Your task to perform on an android device: turn vacation reply on in the gmail app Image 0: 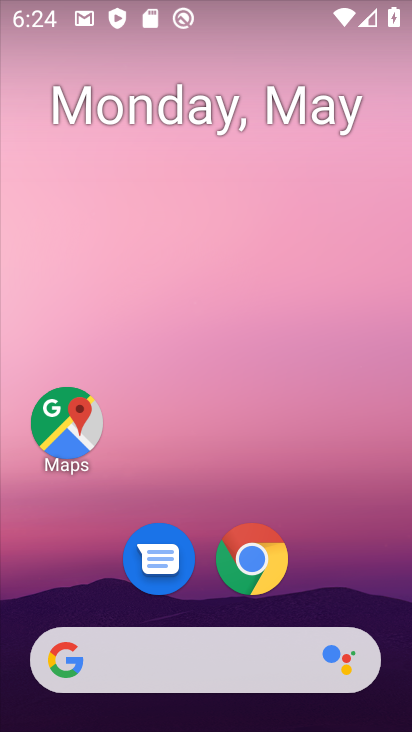
Step 0: drag from (383, 637) to (300, 86)
Your task to perform on an android device: turn vacation reply on in the gmail app Image 1: 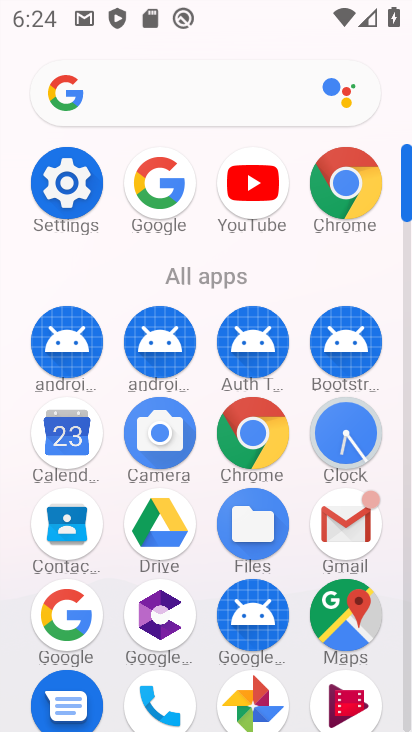
Step 1: click (357, 524)
Your task to perform on an android device: turn vacation reply on in the gmail app Image 2: 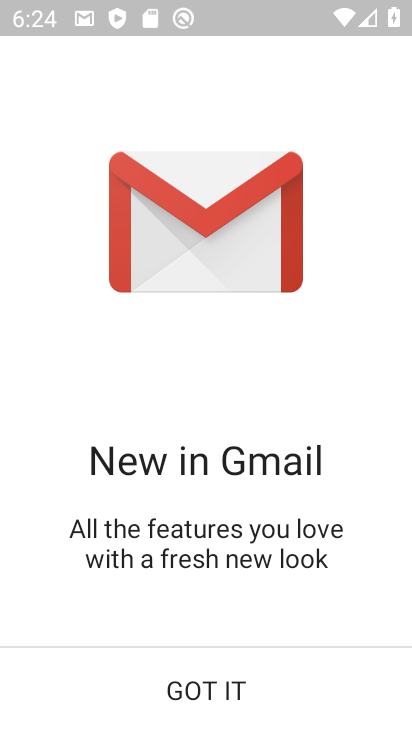
Step 2: click (269, 693)
Your task to perform on an android device: turn vacation reply on in the gmail app Image 3: 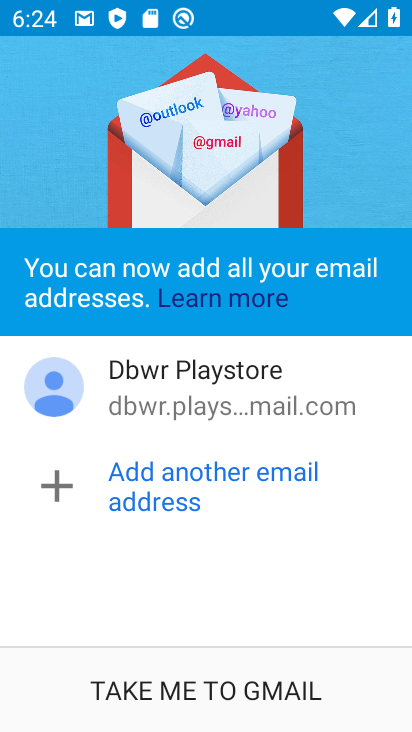
Step 3: click (269, 693)
Your task to perform on an android device: turn vacation reply on in the gmail app Image 4: 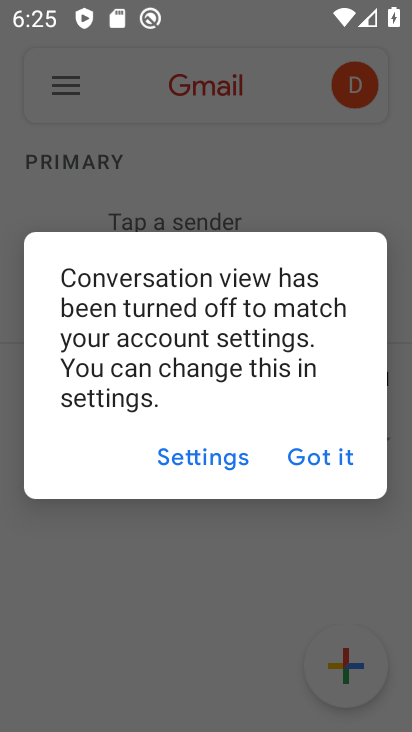
Step 4: click (322, 466)
Your task to perform on an android device: turn vacation reply on in the gmail app Image 5: 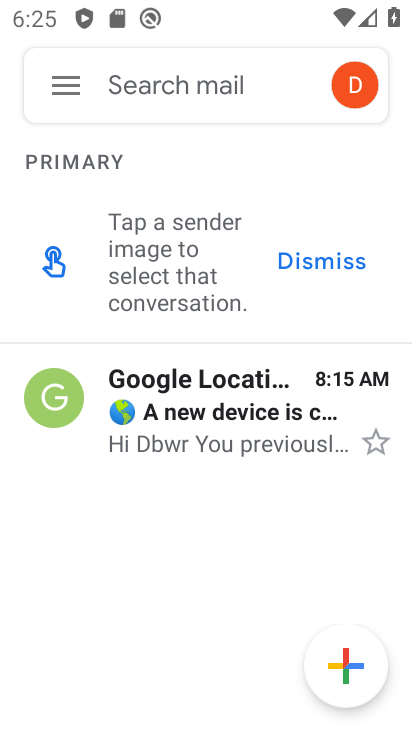
Step 5: click (64, 97)
Your task to perform on an android device: turn vacation reply on in the gmail app Image 6: 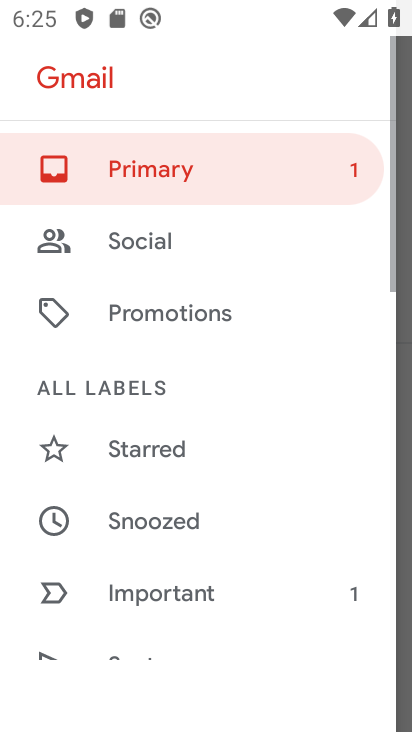
Step 6: drag from (169, 621) to (287, 42)
Your task to perform on an android device: turn vacation reply on in the gmail app Image 7: 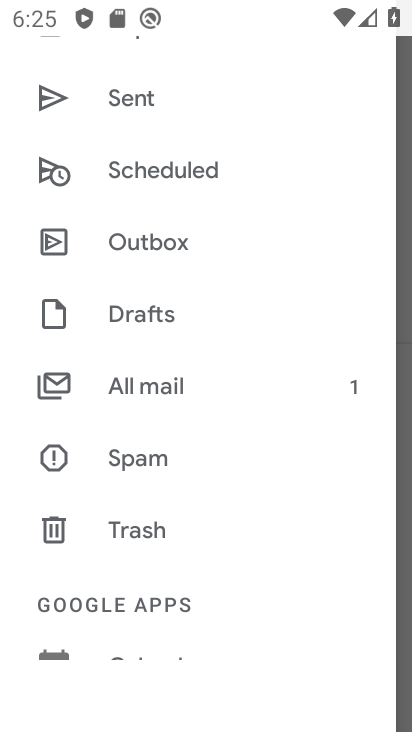
Step 7: drag from (194, 569) to (266, 77)
Your task to perform on an android device: turn vacation reply on in the gmail app Image 8: 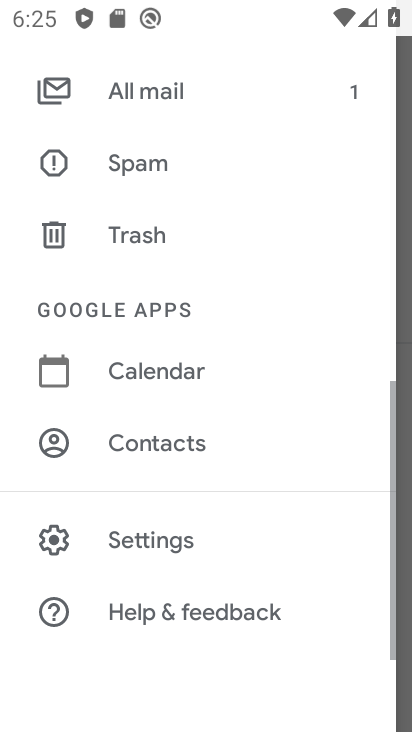
Step 8: click (195, 522)
Your task to perform on an android device: turn vacation reply on in the gmail app Image 9: 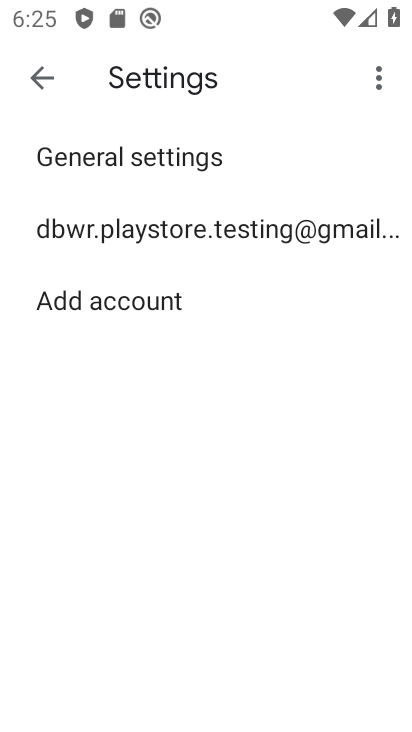
Step 9: click (249, 233)
Your task to perform on an android device: turn vacation reply on in the gmail app Image 10: 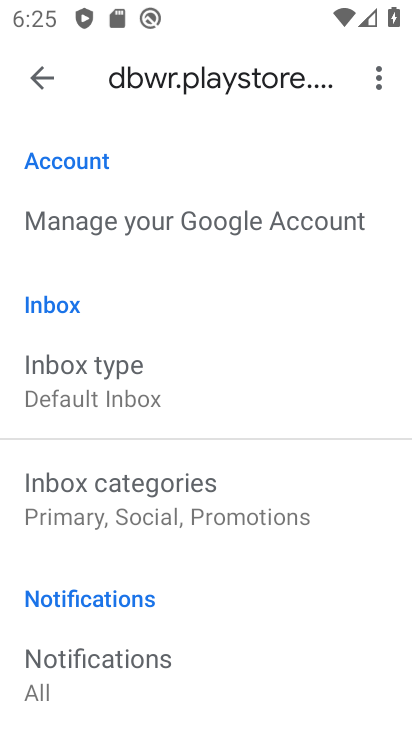
Step 10: drag from (126, 660) to (228, 112)
Your task to perform on an android device: turn vacation reply on in the gmail app Image 11: 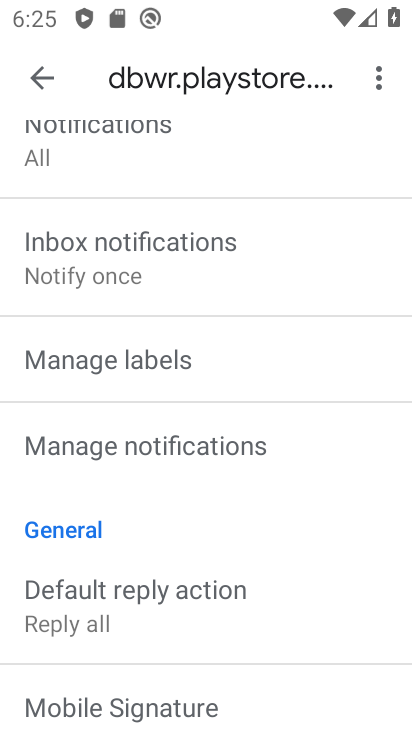
Step 11: drag from (144, 666) to (233, 189)
Your task to perform on an android device: turn vacation reply on in the gmail app Image 12: 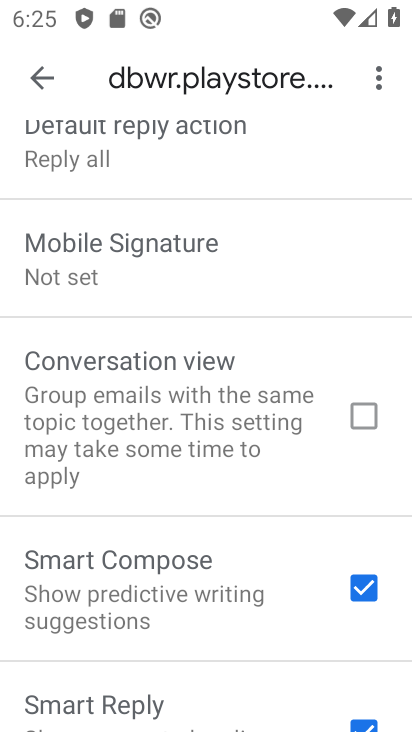
Step 12: drag from (164, 655) to (230, 231)
Your task to perform on an android device: turn vacation reply on in the gmail app Image 13: 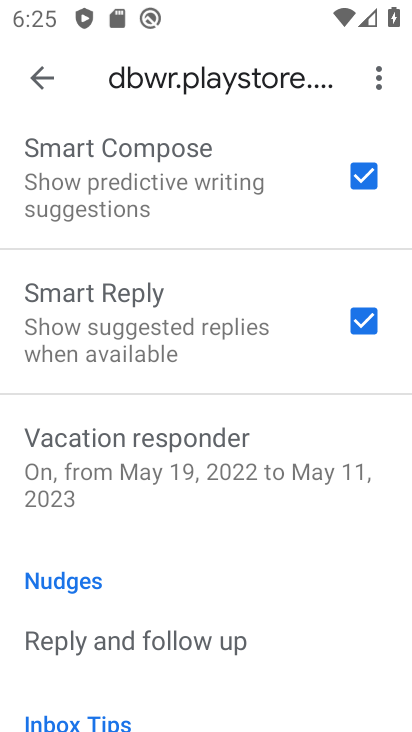
Step 13: click (231, 494)
Your task to perform on an android device: turn vacation reply on in the gmail app Image 14: 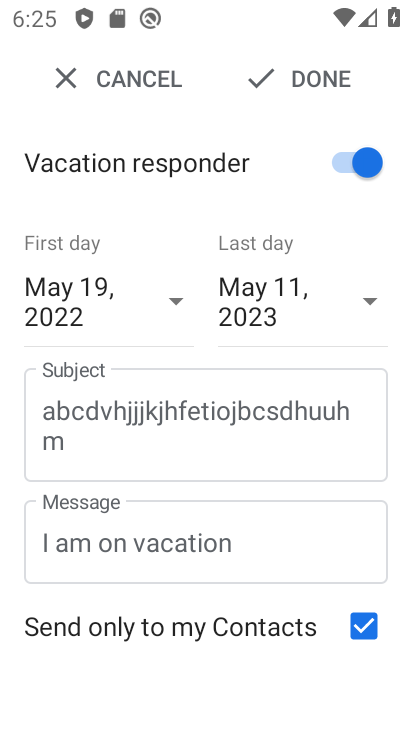
Step 14: task complete